Your task to perform on an android device: open wifi settings Image 0: 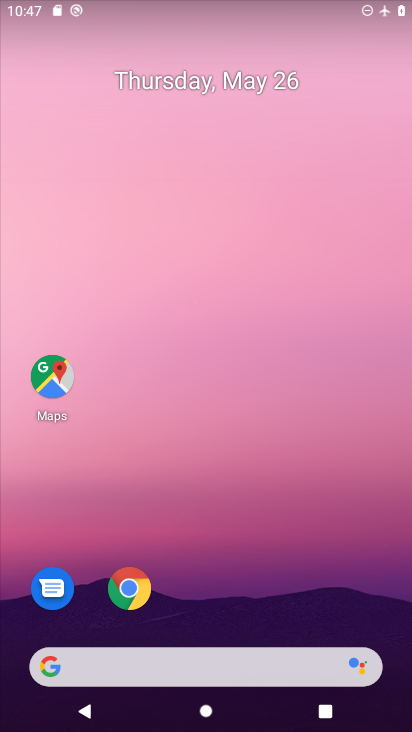
Step 0: drag from (387, 607) to (323, 61)
Your task to perform on an android device: open wifi settings Image 1: 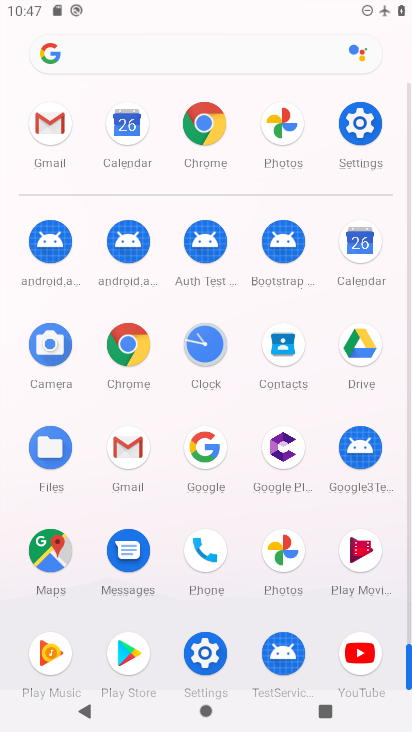
Step 1: click (207, 651)
Your task to perform on an android device: open wifi settings Image 2: 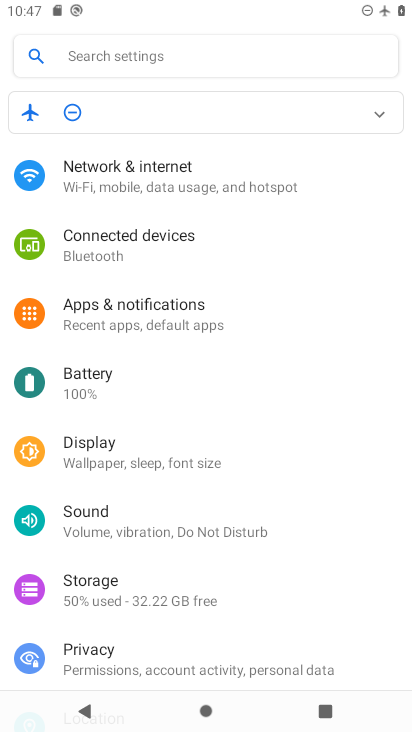
Step 2: click (107, 171)
Your task to perform on an android device: open wifi settings Image 3: 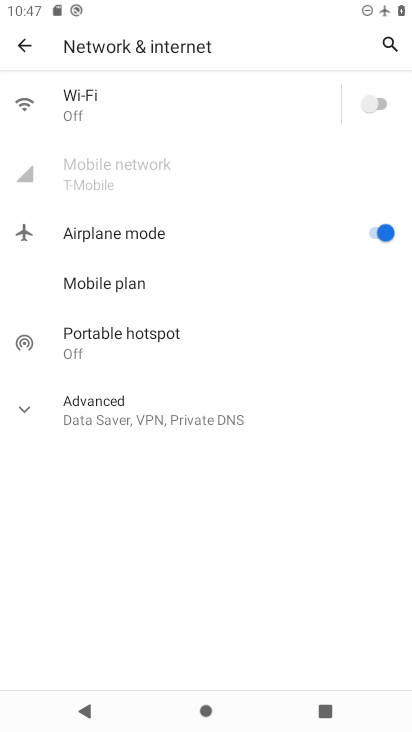
Step 3: click (81, 105)
Your task to perform on an android device: open wifi settings Image 4: 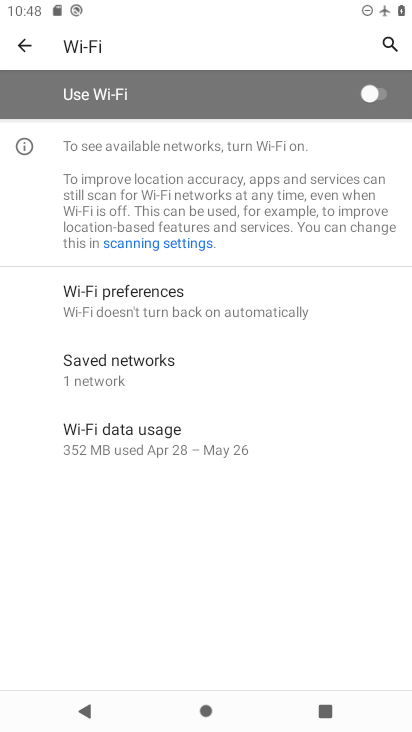
Step 4: task complete